Your task to perform on an android device: turn off location Image 0: 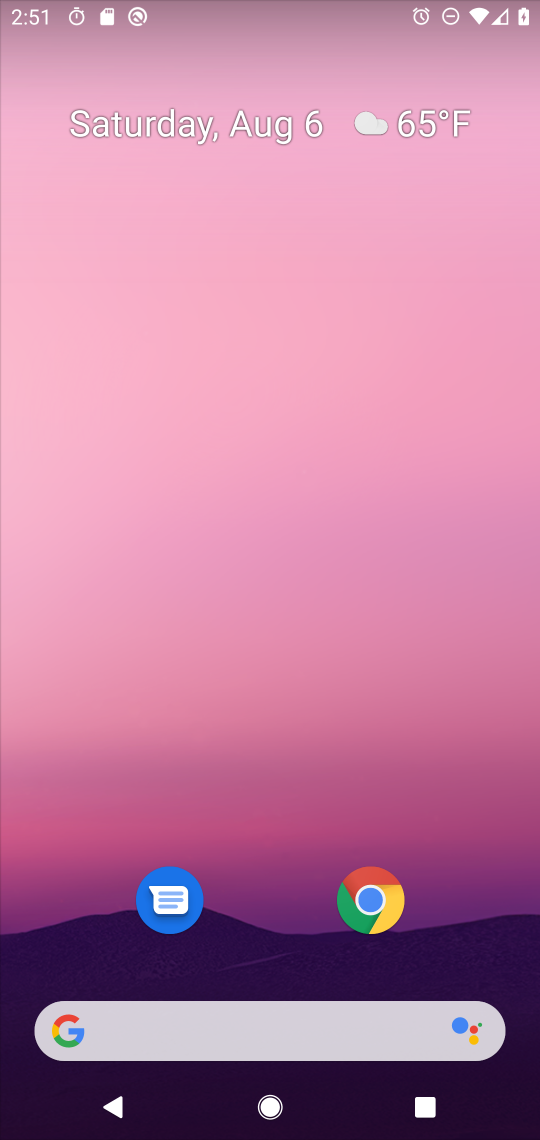
Step 0: drag from (255, 699) to (241, 109)
Your task to perform on an android device: turn off location Image 1: 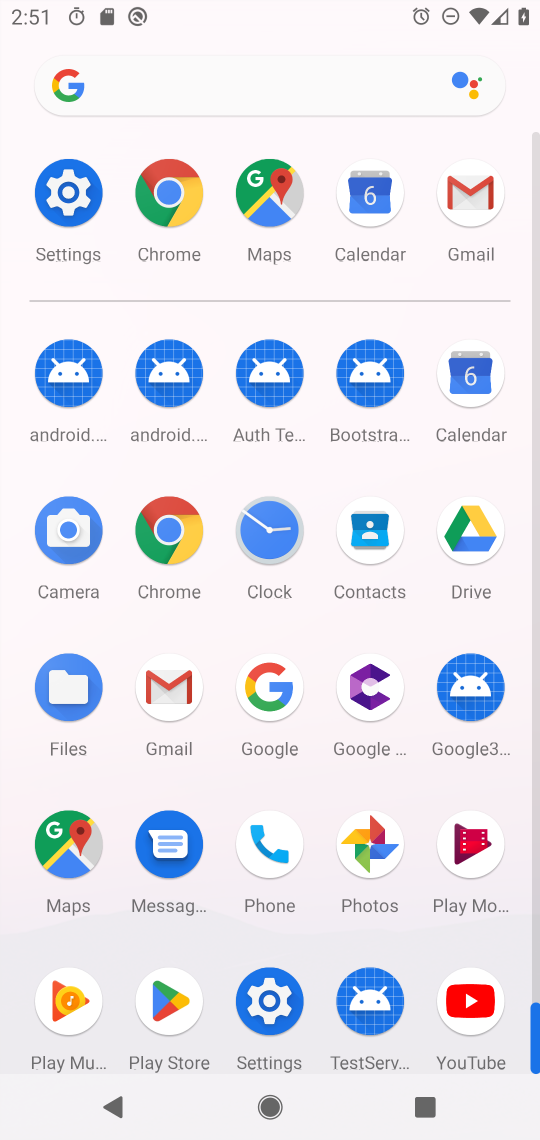
Step 1: click (57, 192)
Your task to perform on an android device: turn off location Image 2: 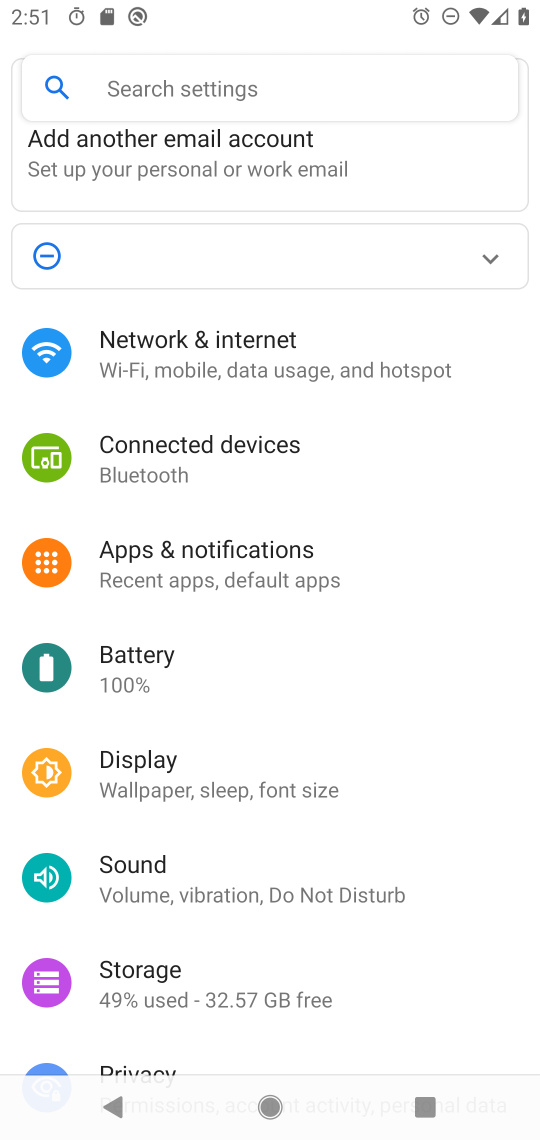
Step 2: drag from (118, 971) to (120, 591)
Your task to perform on an android device: turn off location Image 3: 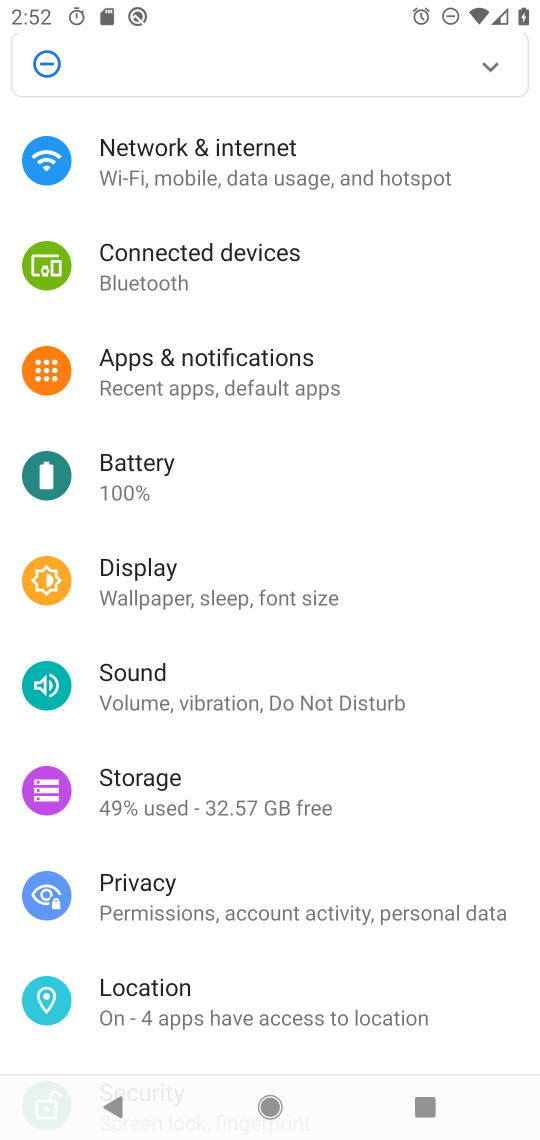
Step 3: click (145, 1001)
Your task to perform on an android device: turn off location Image 4: 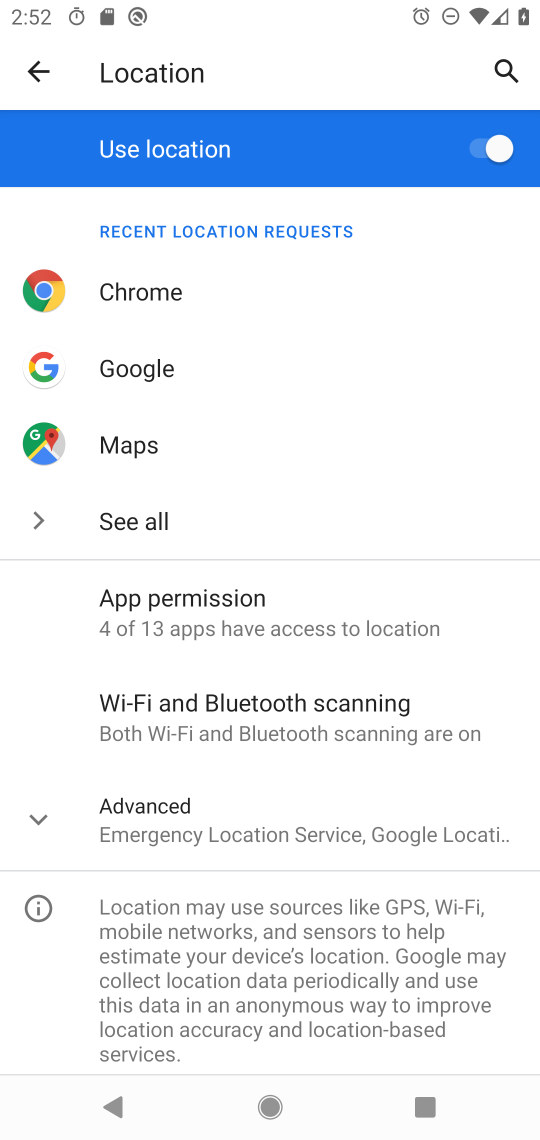
Step 4: click (480, 148)
Your task to perform on an android device: turn off location Image 5: 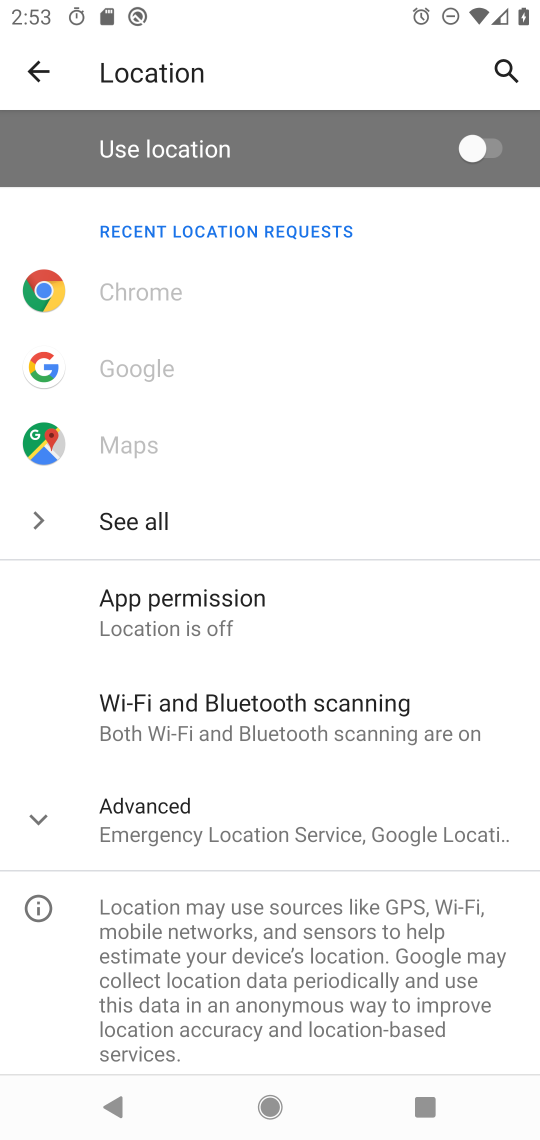
Step 5: task complete